Your task to perform on an android device: Show me popular videos on Youtube Image 0: 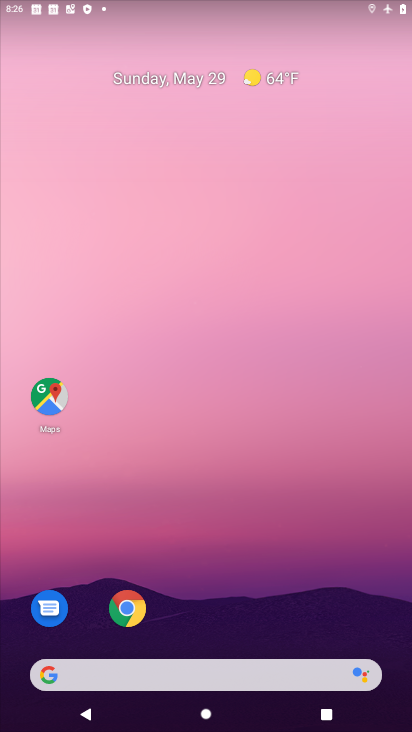
Step 0: drag from (210, 606) to (224, 15)
Your task to perform on an android device: Show me popular videos on Youtube Image 1: 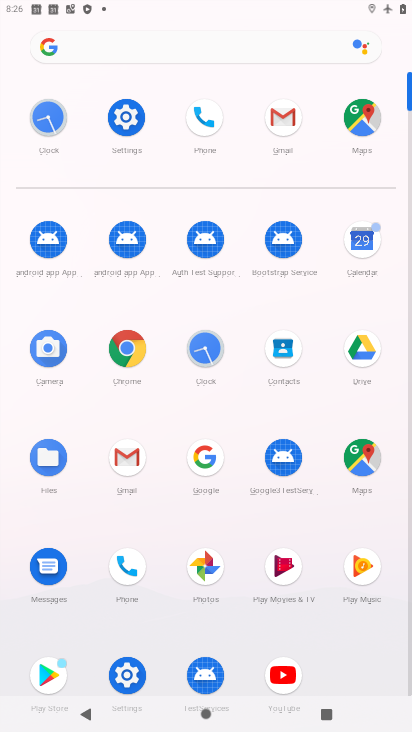
Step 1: click (274, 672)
Your task to perform on an android device: Show me popular videos on Youtube Image 2: 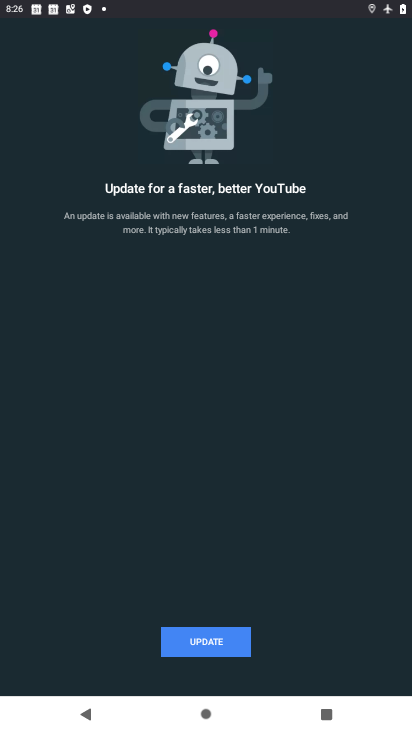
Step 2: click (210, 647)
Your task to perform on an android device: Show me popular videos on Youtube Image 3: 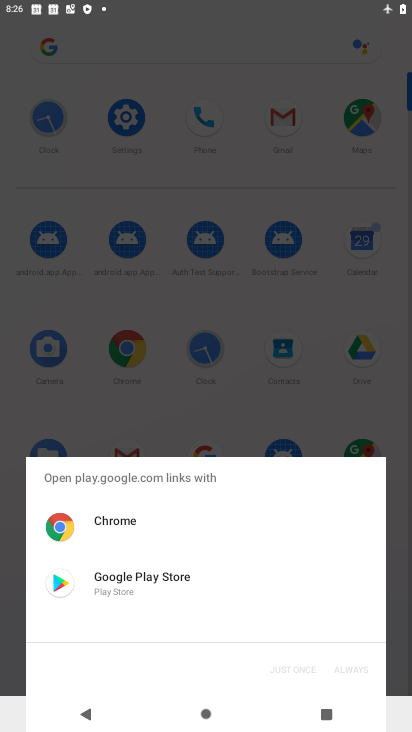
Step 3: click (125, 579)
Your task to perform on an android device: Show me popular videos on Youtube Image 4: 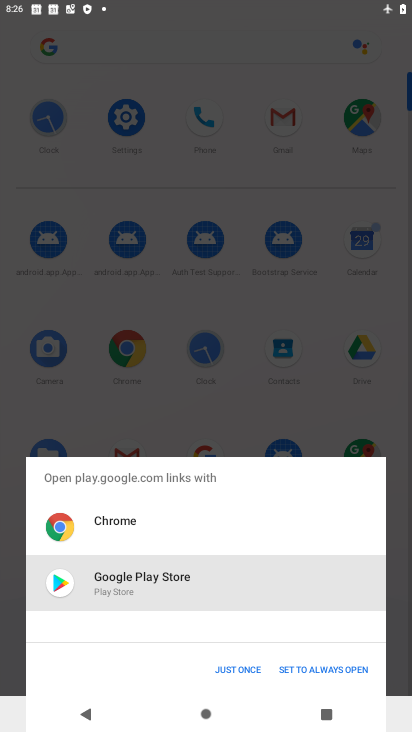
Step 4: click (247, 674)
Your task to perform on an android device: Show me popular videos on Youtube Image 5: 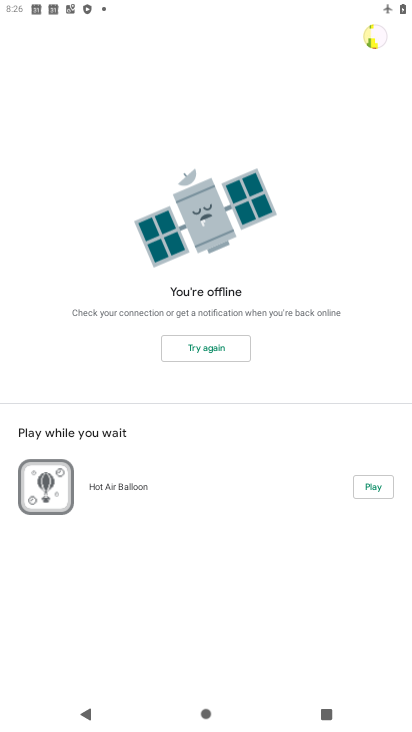
Step 5: task complete